Your task to perform on an android device: Open Android settings Image 0: 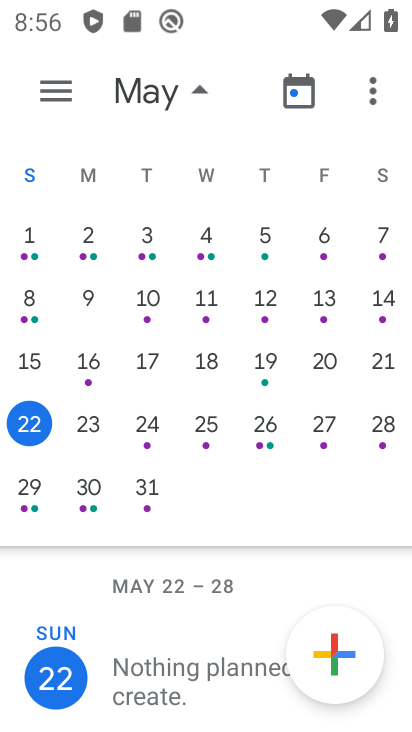
Step 0: press home button
Your task to perform on an android device: Open Android settings Image 1: 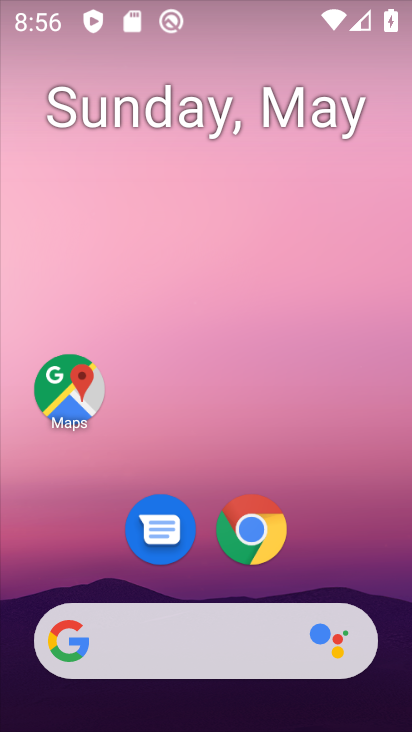
Step 1: drag from (340, 545) to (365, 97)
Your task to perform on an android device: Open Android settings Image 2: 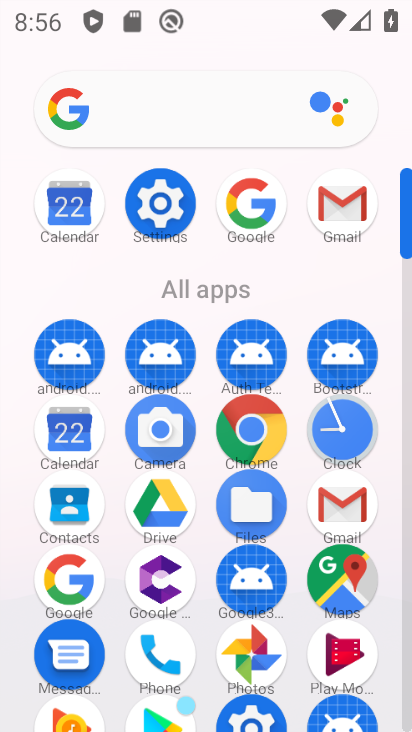
Step 2: click (169, 191)
Your task to perform on an android device: Open Android settings Image 3: 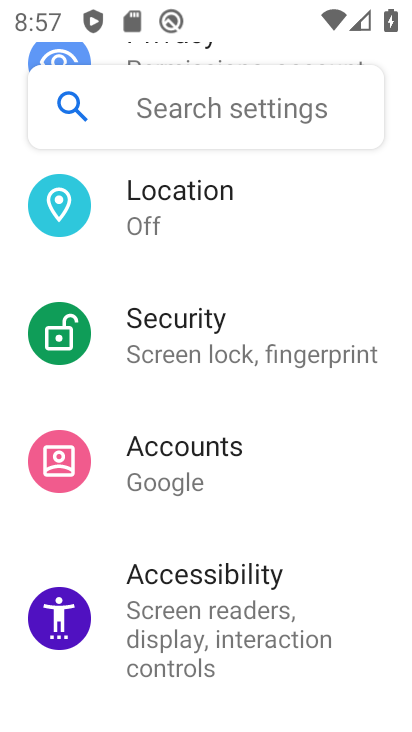
Step 3: task complete